Your task to perform on an android device: find photos in the google photos app Image 0: 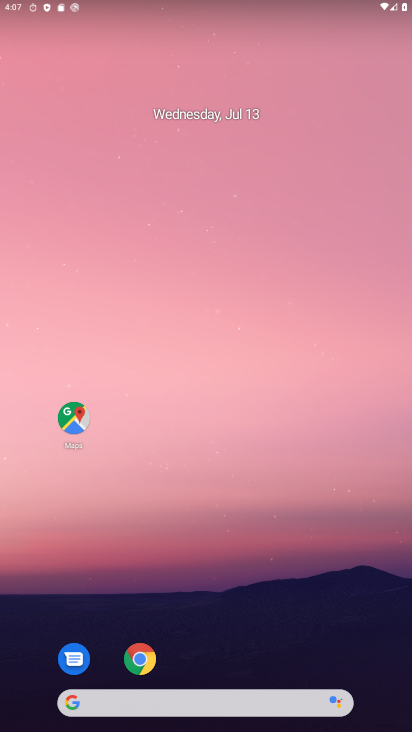
Step 0: drag from (206, 674) to (279, 134)
Your task to perform on an android device: find photos in the google photos app Image 1: 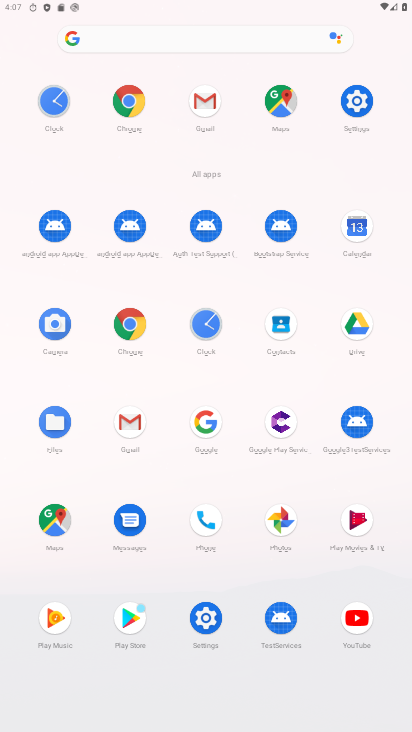
Step 1: click (282, 508)
Your task to perform on an android device: find photos in the google photos app Image 2: 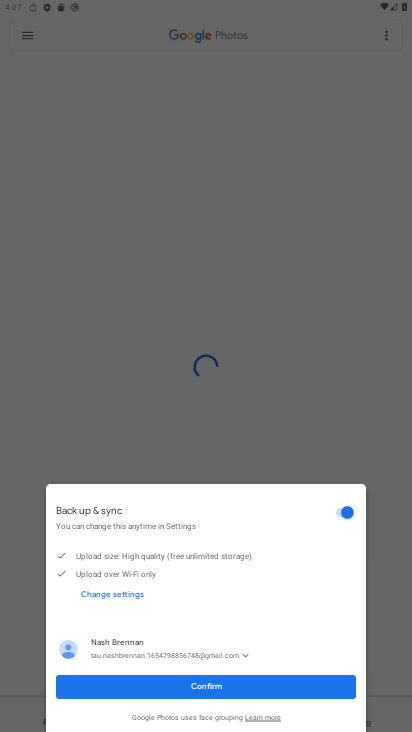
Step 2: click (208, 688)
Your task to perform on an android device: find photos in the google photos app Image 3: 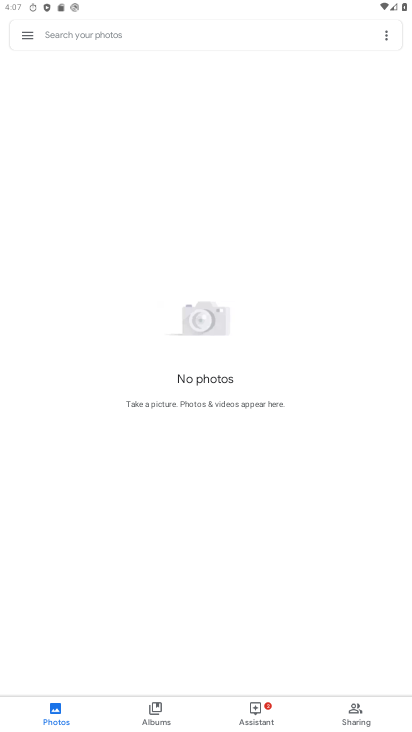
Step 3: task complete